Your task to perform on an android device: open app "PUBG MOBILE" (install if not already installed) Image 0: 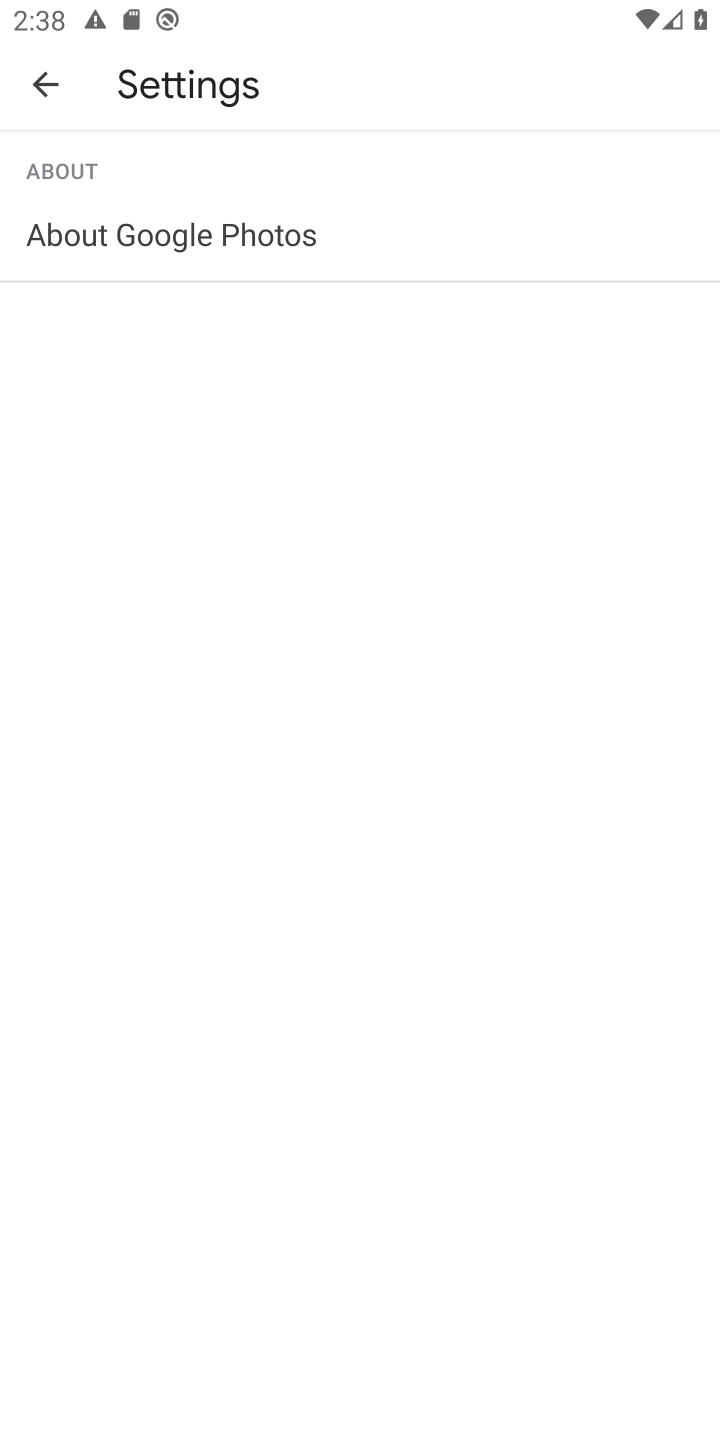
Step 0: press home button
Your task to perform on an android device: open app "PUBG MOBILE" (install if not already installed) Image 1: 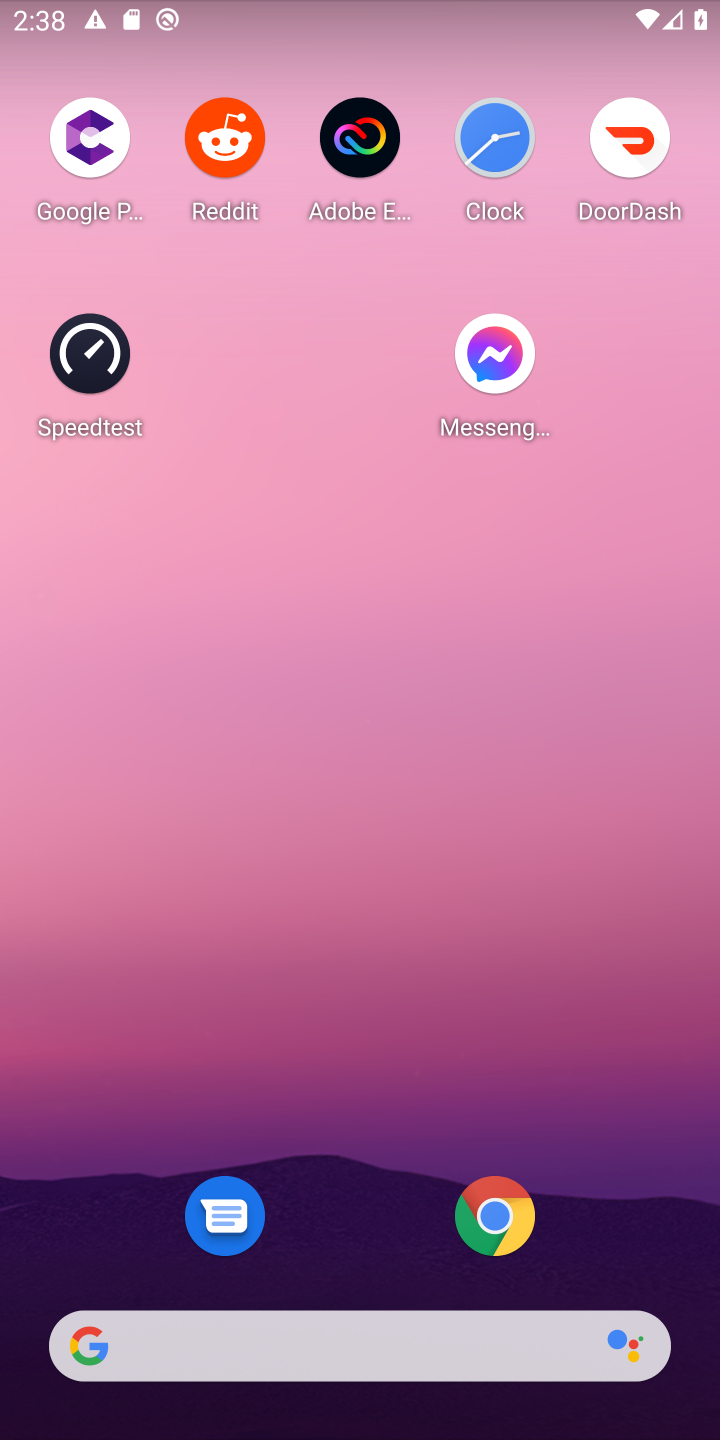
Step 1: drag from (626, 1237) to (511, 413)
Your task to perform on an android device: open app "PUBG MOBILE" (install if not already installed) Image 2: 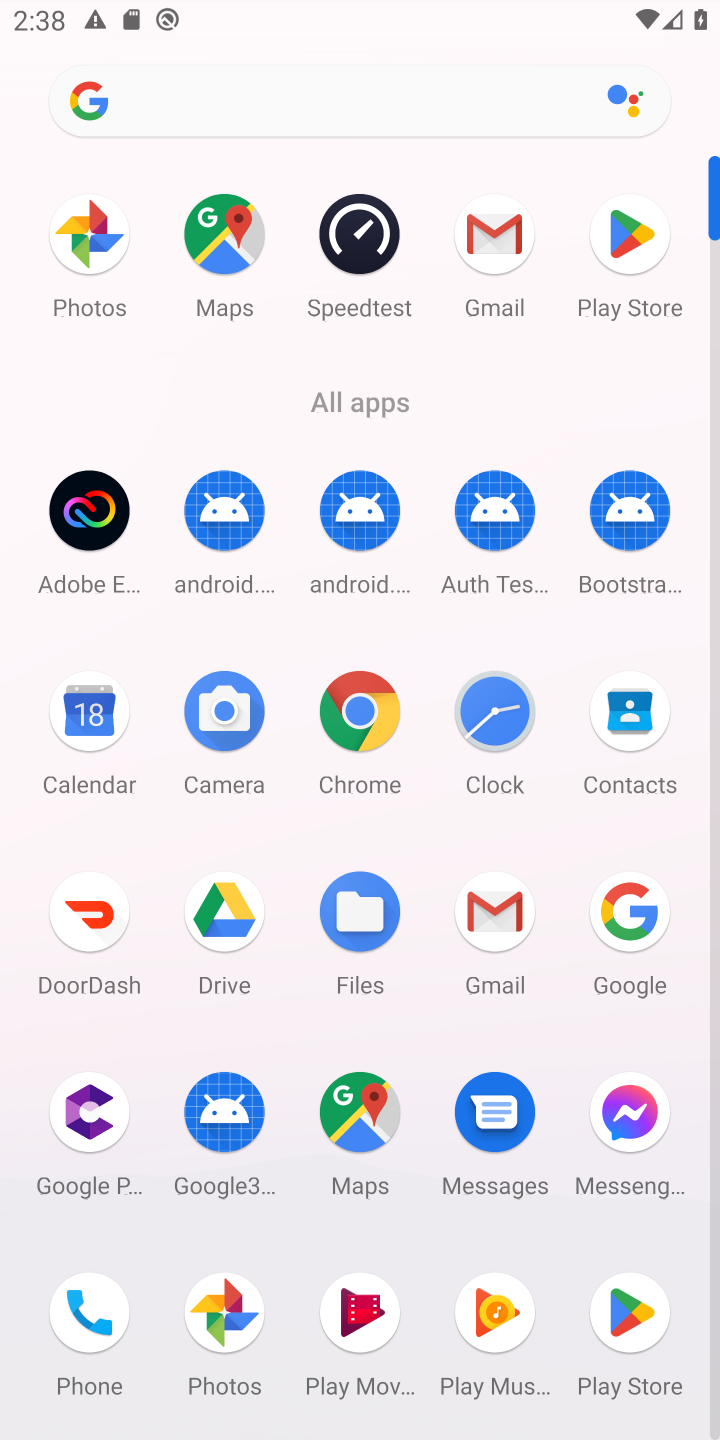
Step 2: click (631, 1310)
Your task to perform on an android device: open app "PUBG MOBILE" (install if not already installed) Image 3: 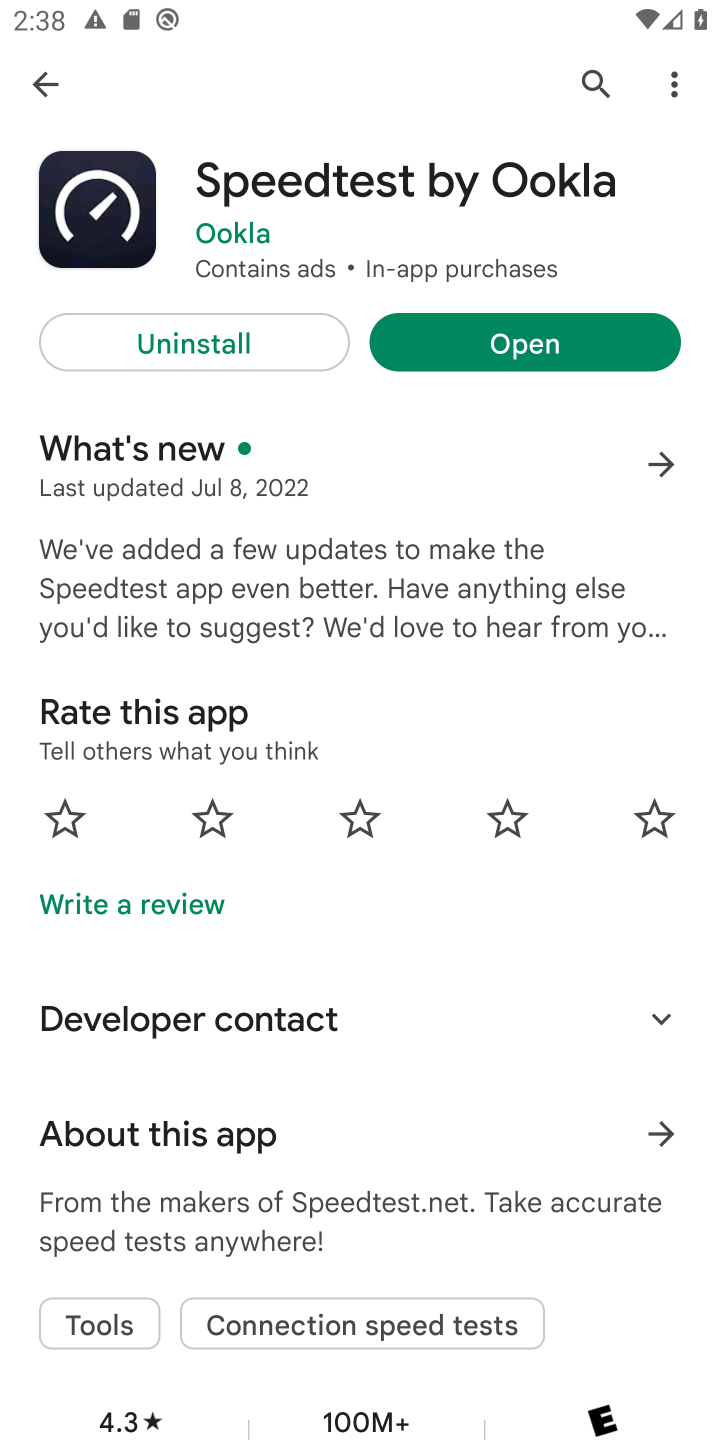
Step 3: click (589, 69)
Your task to perform on an android device: open app "PUBG MOBILE" (install if not already installed) Image 4: 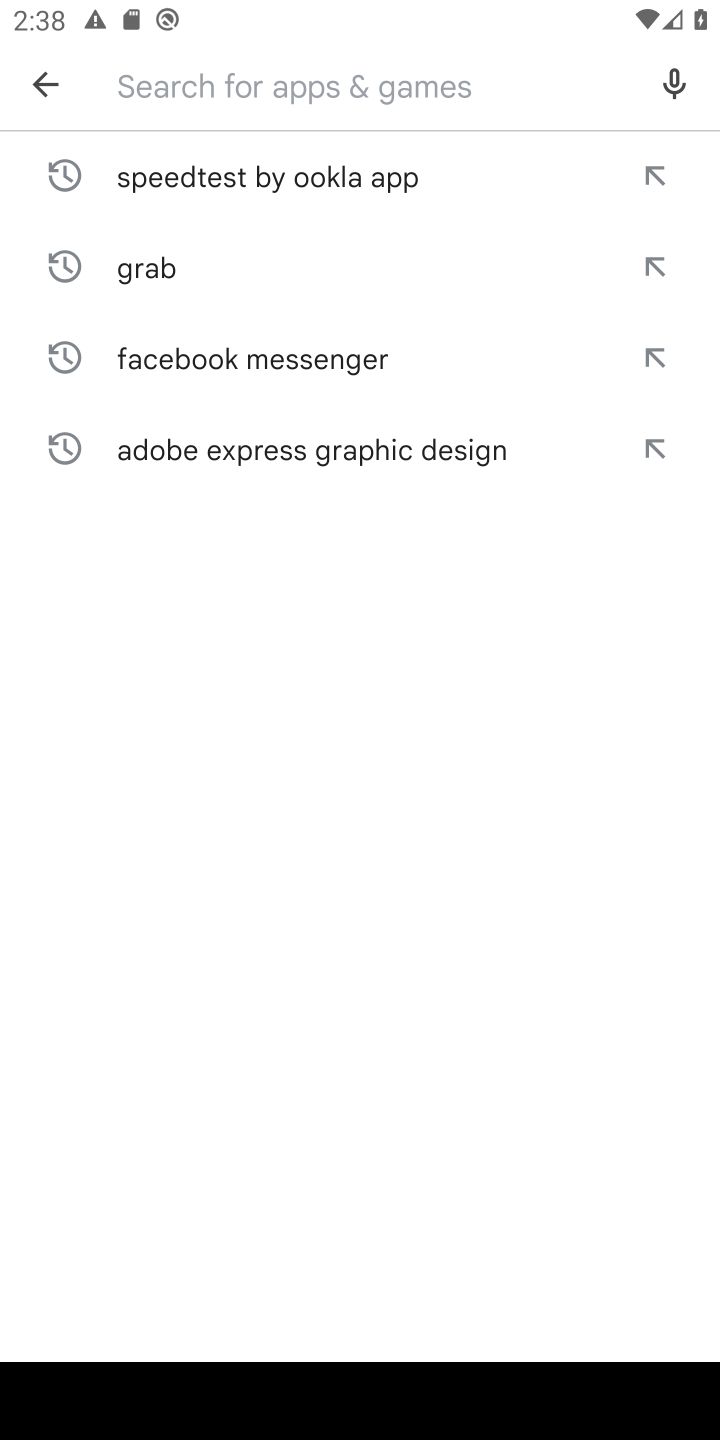
Step 4: type "PUBG MOBILE"
Your task to perform on an android device: open app "PUBG MOBILE" (install if not already installed) Image 5: 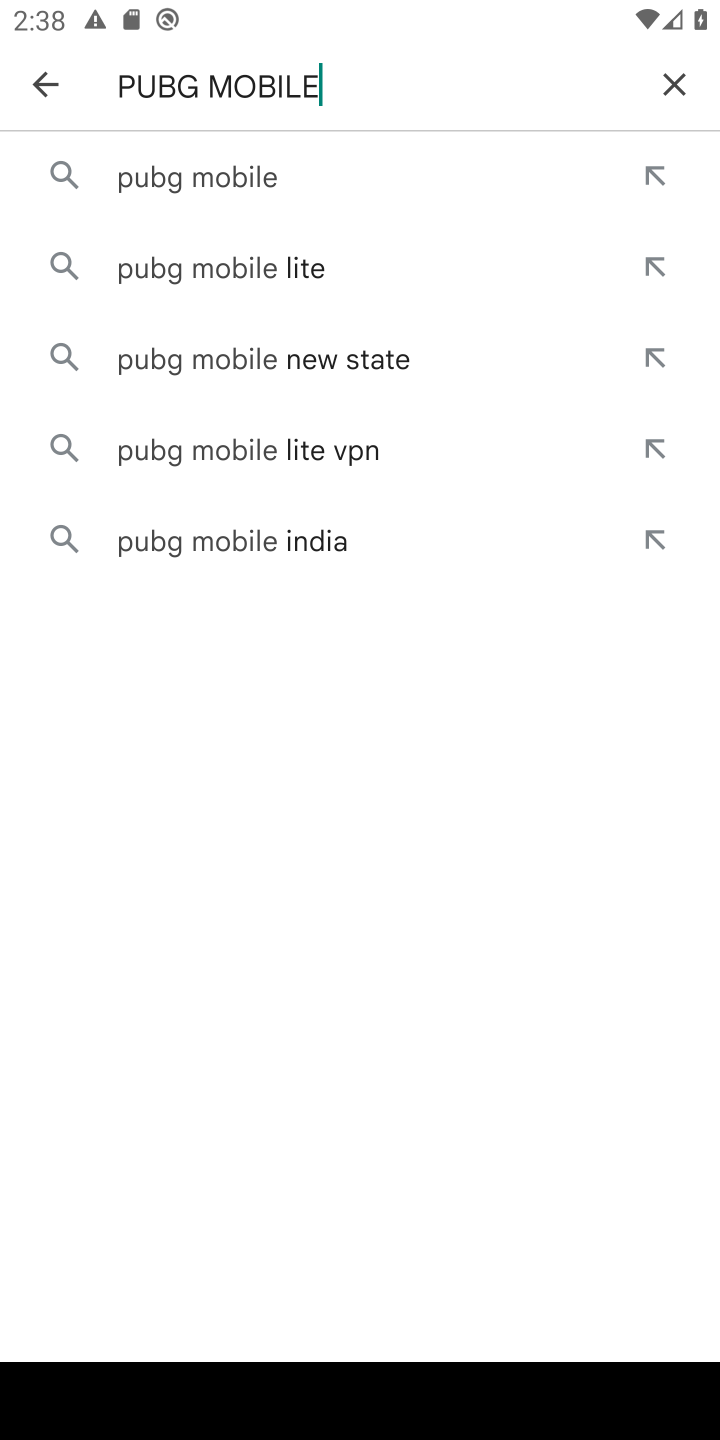
Step 5: click (182, 176)
Your task to perform on an android device: open app "PUBG MOBILE" (install if not already installed) Image 6: 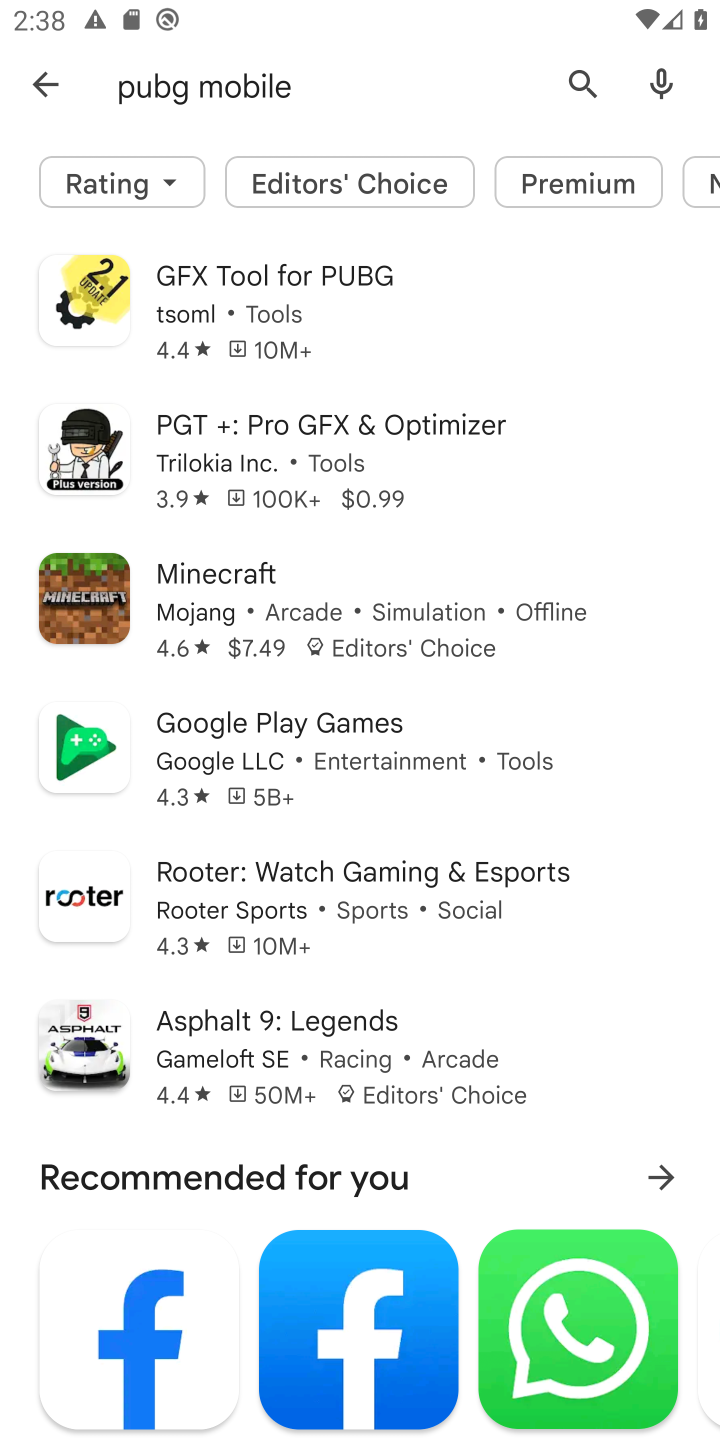
Step 6: drag from (551, 970) to (536, 258)
Your task to perform on an android device: open app "PUBG MOBILE" (install if not already installed) Image 7: 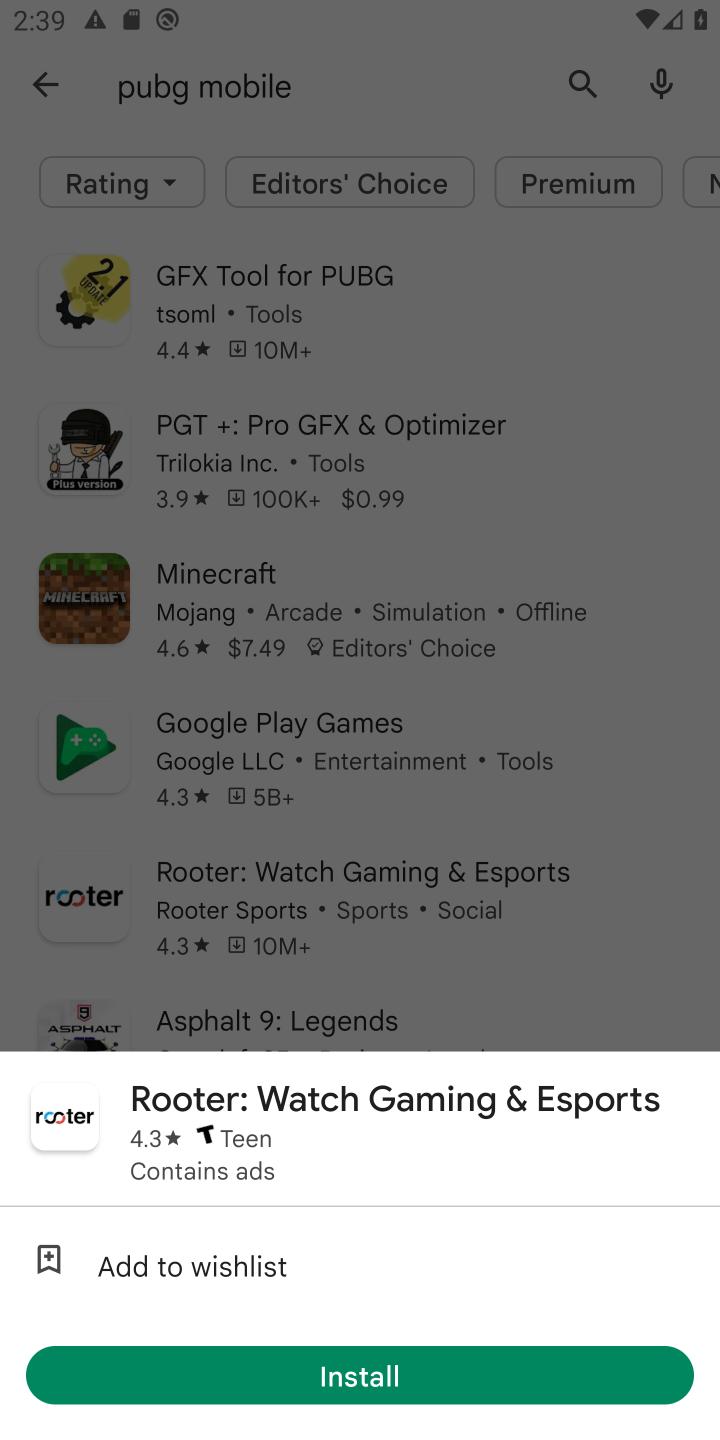
Step 7: click (603, 955)
Your task to perform on an android device: open app "PUBG MOBILE" (install if not already installed) Image 8: 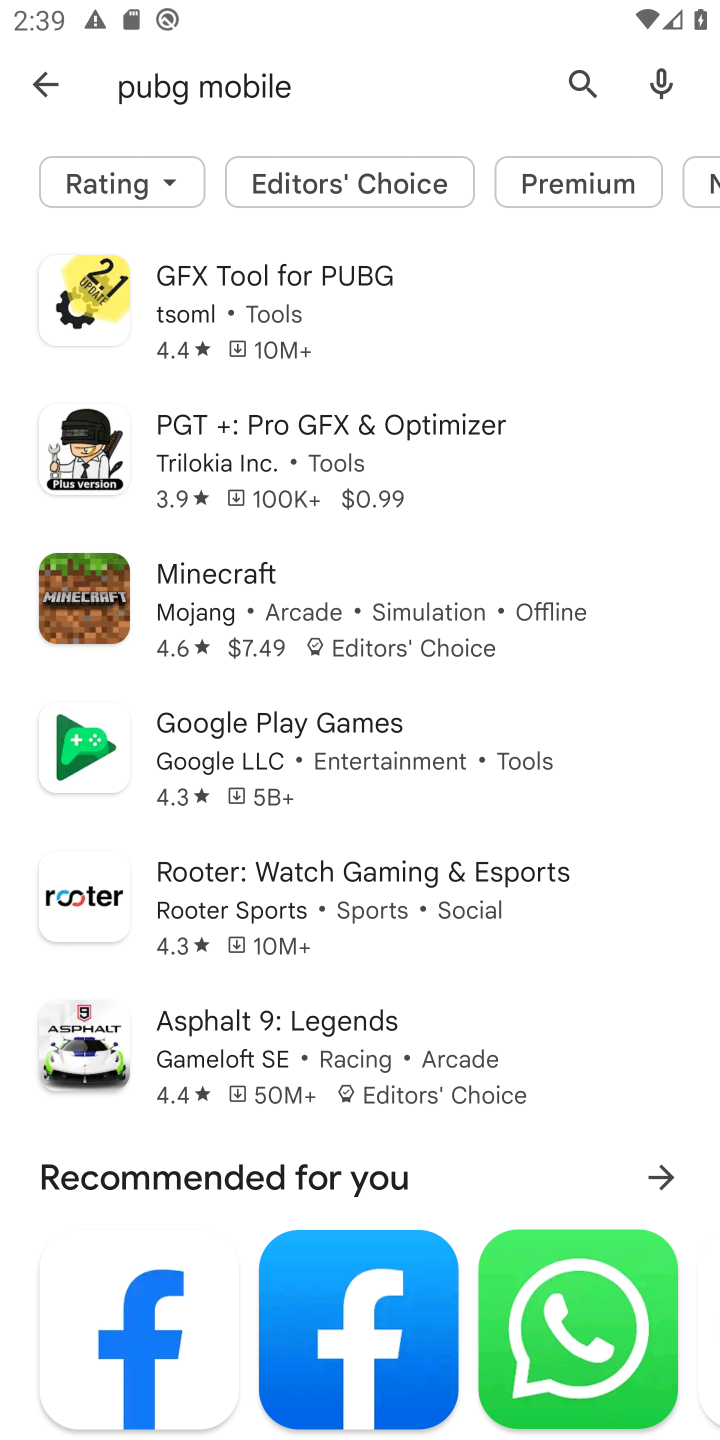
Step 8: task complete